Your task to perform on an android device: open app "Move to iOS" (install if not already installed), go to login, and select forgot password Image 0: 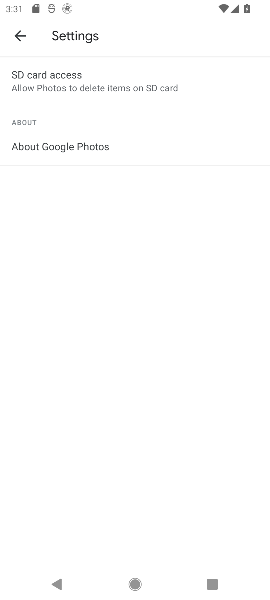
Step 0: click (16, 39)
Your task to perform on an android device: open app "Move to iOS" (install if not already installed), go to login, and select forgot password Image 1: 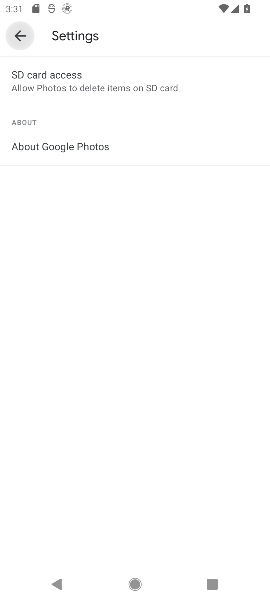
Step 1: click (19, 38)
Your task to perform on an android device: open app "Move to iOS" (install if not already installed), go to login, and select forgot password Image 2: 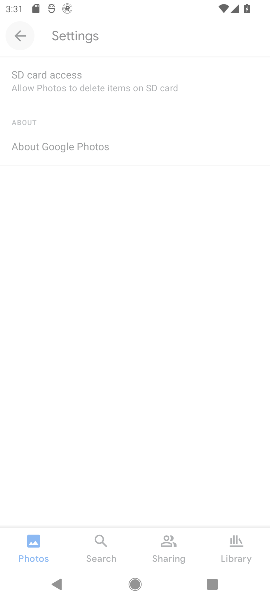
Step 2: click (21, 38)
Your task to perform on an android device: open app "Move to iOS" (install if not already installed), go to login, and select forgot password Image 3: 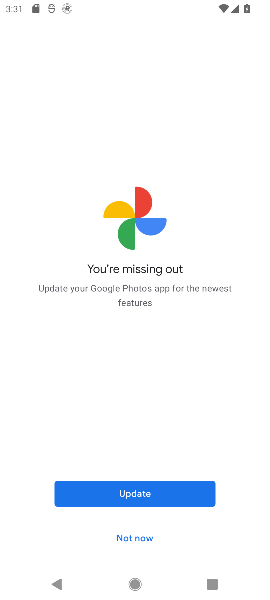
Step 3: click (136, 538)
Your task to perform on an android device: open app "Move to iOS" (install if not already installed), go to login, and select forgot password Image 4: 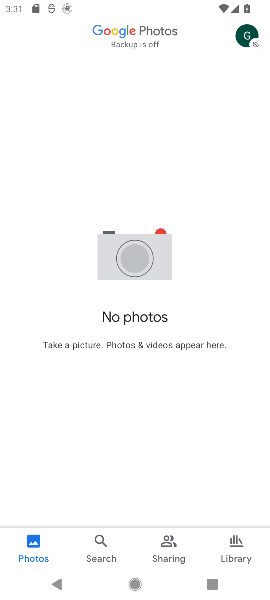
Step 4: press back button
Your task to perform on an android device: open app "Move to iOS" (install if not already installed), go to login, and select forgot password Image 5: 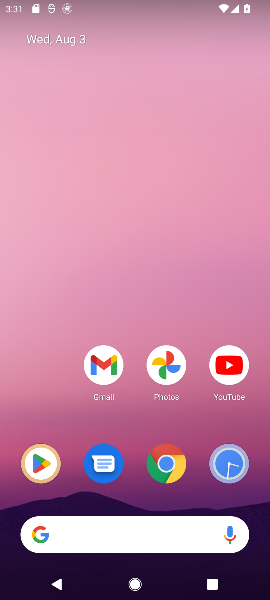
Step 5: press home button
Your task to perform on an android device: open app "Move to iOS" (install if not already installed), go to login, and select forgot password Image 6: 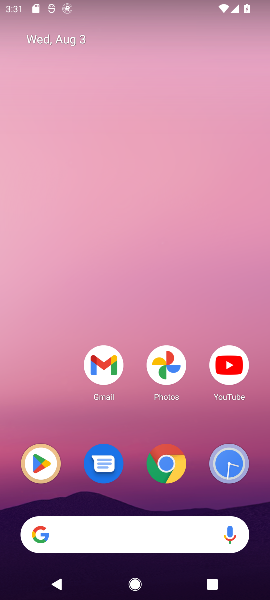
Step 6: drag from (166, 482) to (193, 136)
Your task to perform on an android device: open app "Move to iOS" (install if not already installed), go to login, and select forgot password Image 7: 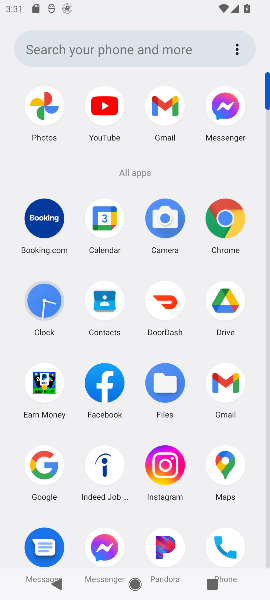
Step 7: drag from (133, 469) to (145, 215)
Your task to perform on an android device: open app "Move to iOS" (install if not already installed), go to login, and select forgot password Image 8: 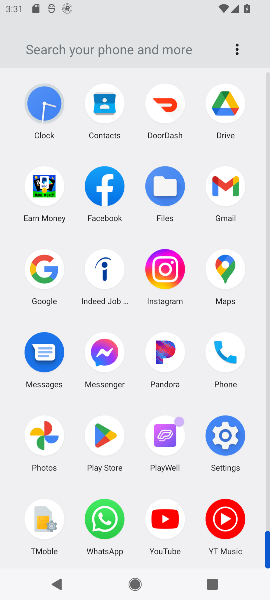
Step 8: drag from (121, 423) to (152, 210)
Your task to perform on an android device: open app "Move to iOS" (install if not already installed), go to login, and select forgot password Image 9: 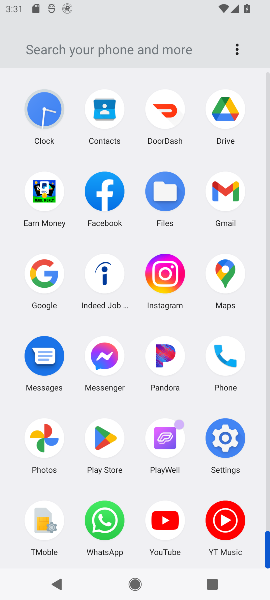
Step 9: click (98, 445)
Your task to perform on an android device: open app "Move to iOS" (install if not already installed), go to login, and select forgot password Image 10: 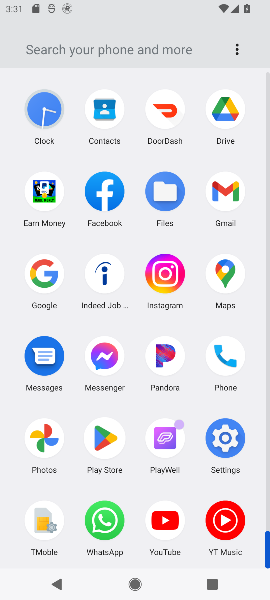
Step 10: click (97, 445)
Your task to perform on an android device: open app "Move to iOS" (install if not already installed), go to login, and select forgot password Image 11: 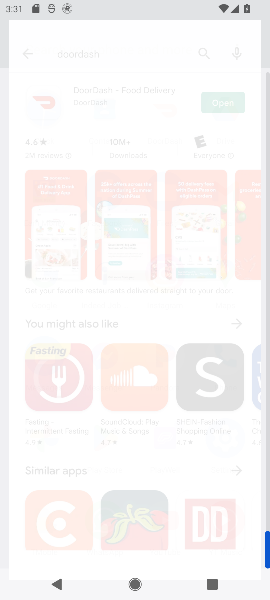
Step 11: click (97, 445)
Your task to perform on an android device: open app "Move to iOS" (install if not already installed), go to login, and select forgot password Image 12: 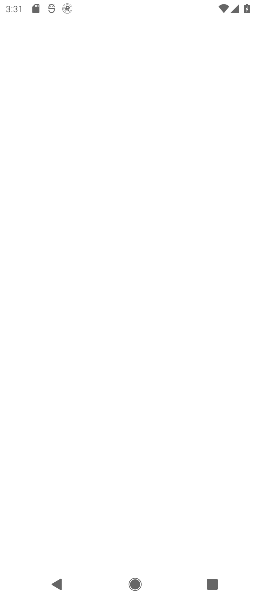
Step 12: click (97, 445)
Your task to perform on an android device: open app "Move to iOS" (install if not already installed), go to login, and select forgot password Image 13: 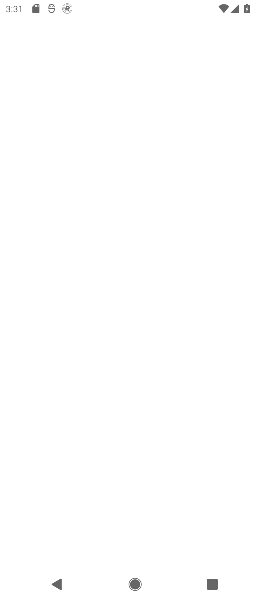
Step 13: click (97, 444)
Your task to perform on an android device: open app "Move to iOS" (install if not already installed), go to login, and select forgot password Image 14: 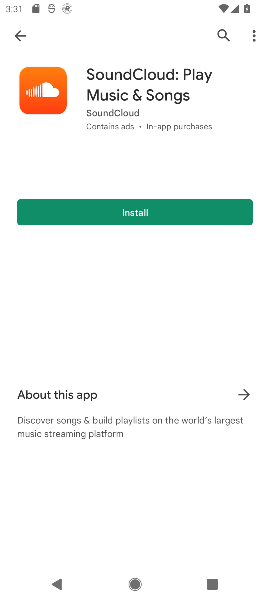
Step 14: click (97, 444)
Your task to perform on an android device: open app "Move to iOS" (install if not already installed), go to login, and select forgot password Image 15: 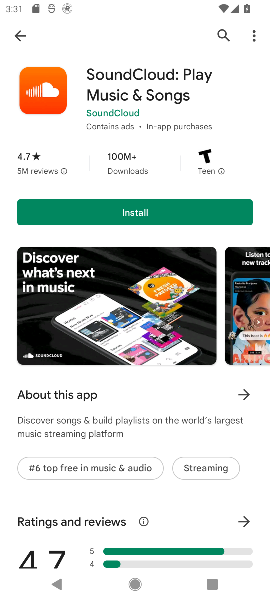
Step 15: click (226, 29)
Your task to perform on an android device: open app "Move to iOS" (install if not already installed), go to login, and select forgot password Image 16: 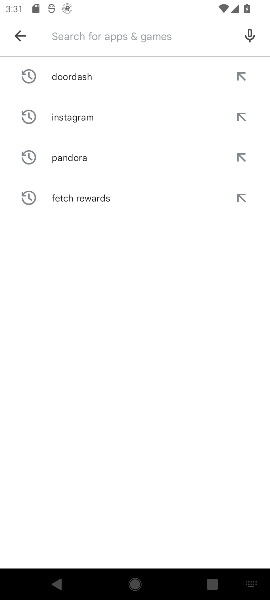
Step 16: type "move to ios"
Your task to perform on an android device: open app "Move to iOS" (install if not already installed), go to login, and select forgot password Image 17: 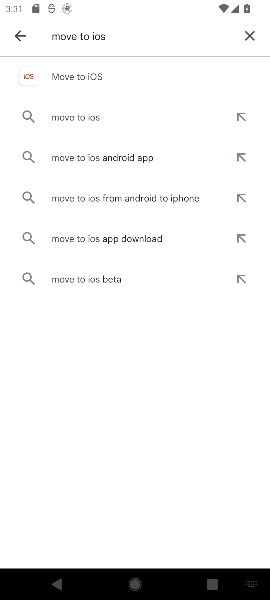
Step 17: click (80, 77)
Your task to perform on an android device: open app "Move to iOS" (install if not already installed), go to login, and select forgot password Image 18: 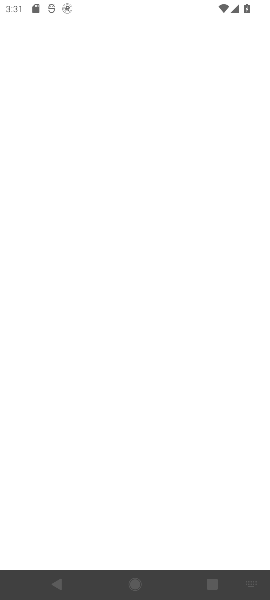
Step 18: click (80, 77)
Your task to perform on an android device: open app "Move to iOS" (install if not already installed), go to login, and select forgot password Image 19: 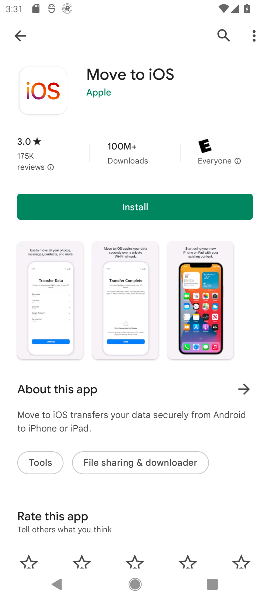
Step 19: click (150, 211)
Your task to perform on an android device: open app "Move to iOS" (install if not already installed), go to login, and select forgot password Image 20: 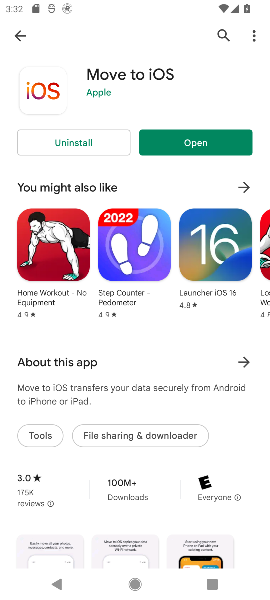
Step 20: click (186, 144)
Your task to perform on an android device: open app "Move to iOS" (install if not already installed), go to login, and select forgot password Image 21: 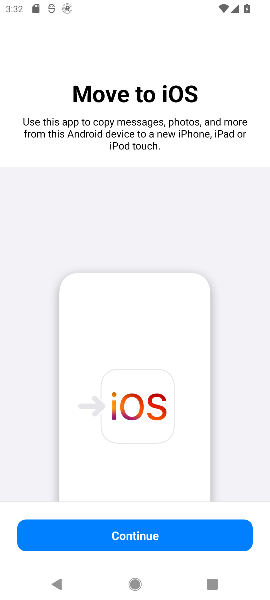
Step 21: click (147, 531)
Your task to perform on an android device: open app "Move to iOS" (install if not already installed), go to login, and select forgot password Image 22: 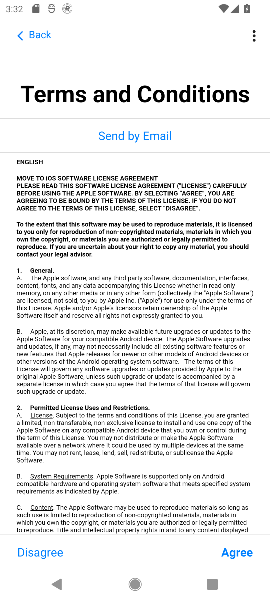
Step 22: click (231, 557)
Your task to perform on an android device: open app "Move to iOS" (install if not already installed), go to login, and select forgot password Image 23: 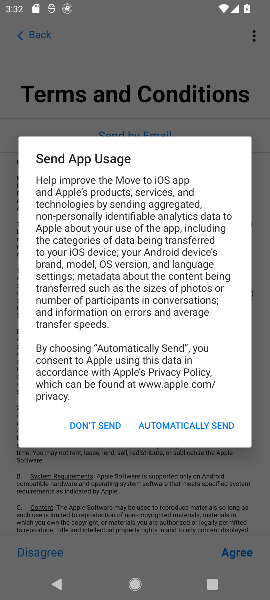
Step 23: click (195, 422)
Your task to perform on an android device: open app "Move to iOS" (install if not already installed), go to login, and select forgot password Image 24: 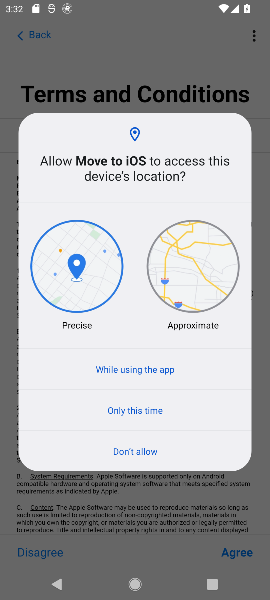
Step 24: click (140, 381)
Your task to perform on an android device: open app "Move to iOS" (install if not already installed), go to login, and select forgot password Image 25: 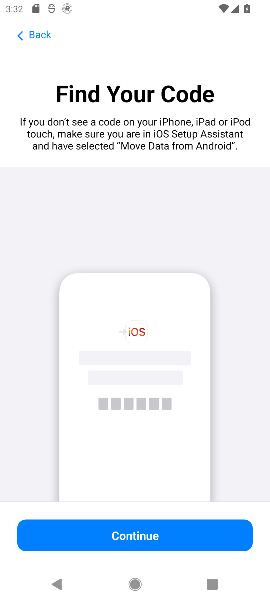
Step 25: click (138, 535)
Your task to perform on an android device: open app "Move to iOS" (install if not already installed), go to login, and select forgot password Image 26: 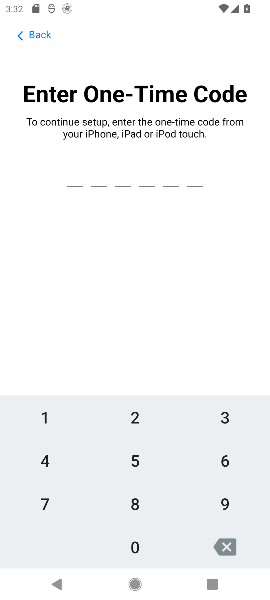
Step 26: click (30, 32)
Your task to perform on an android device: open app "Move to iOS" (install if not already installed), go to login, and select forgot password Image 27: 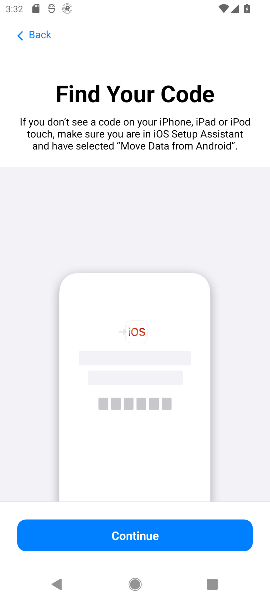
Step 27: task complete